Your task to perform on an android device: Search for "usb-c" on costco, select the first entry, add it to the cart, then select checkout. Image 0: 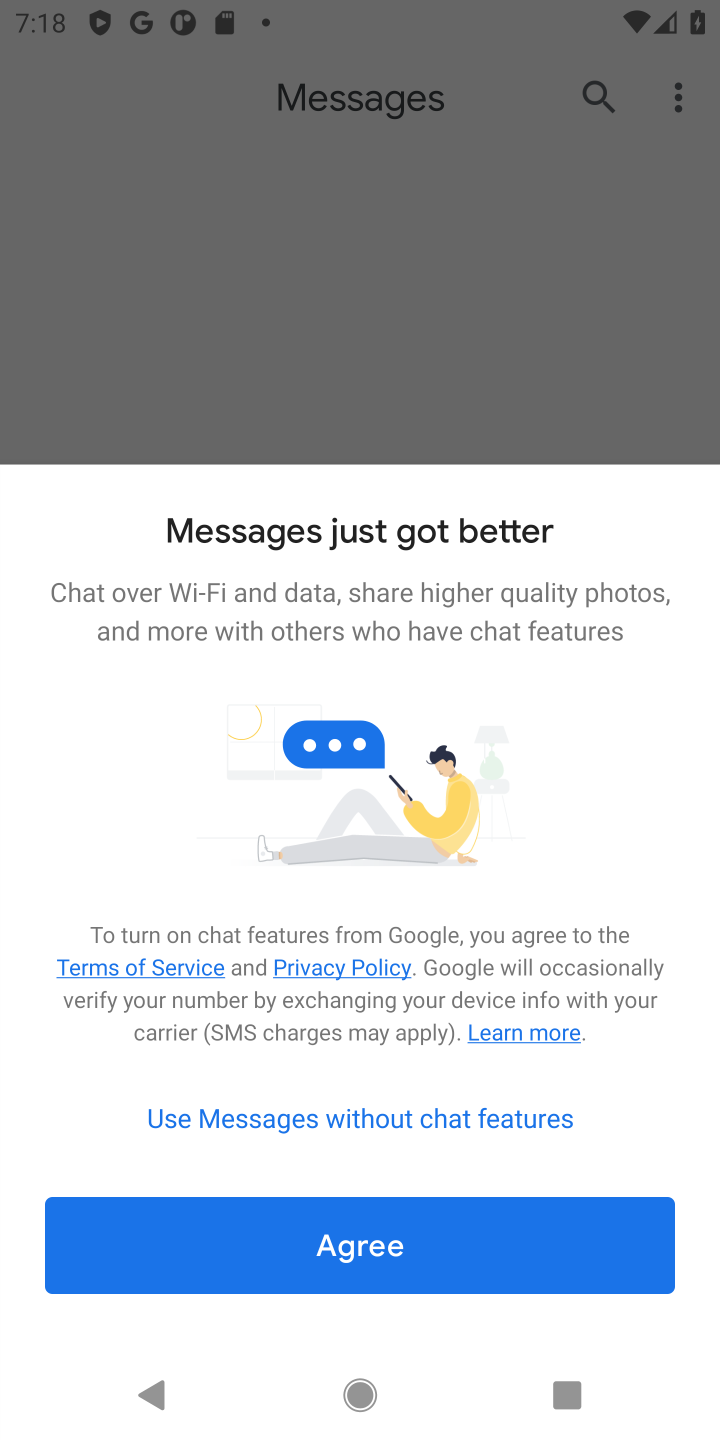
Step 0: press home button
Your task to perform on an android device: Search for "usb-c" on costco, select the first entry, add it to the cart, then select checkout. Image 1: 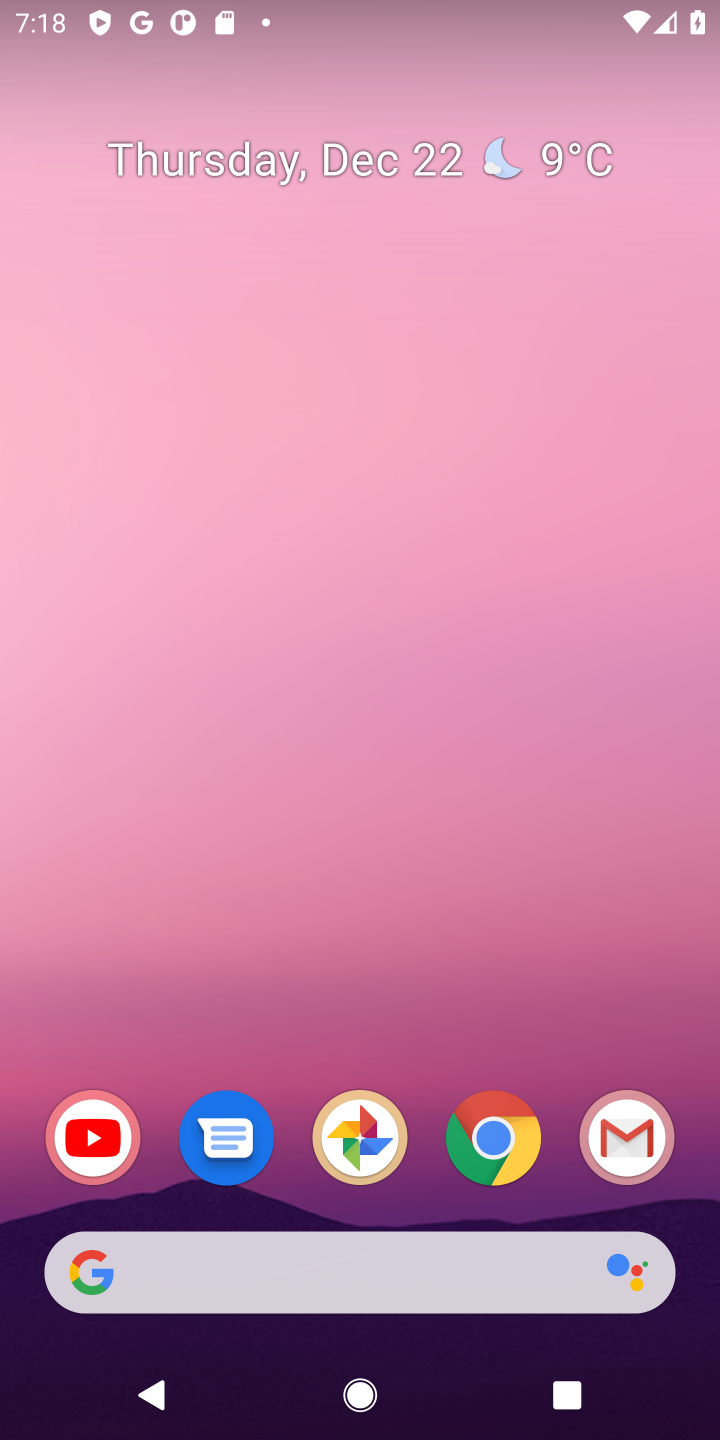
Step 1: click (490, 1152)
Your task to perform on an android device: Search for "usb-c" on costco, select the first entry, add it to the cart, then select checkout. Image 2: 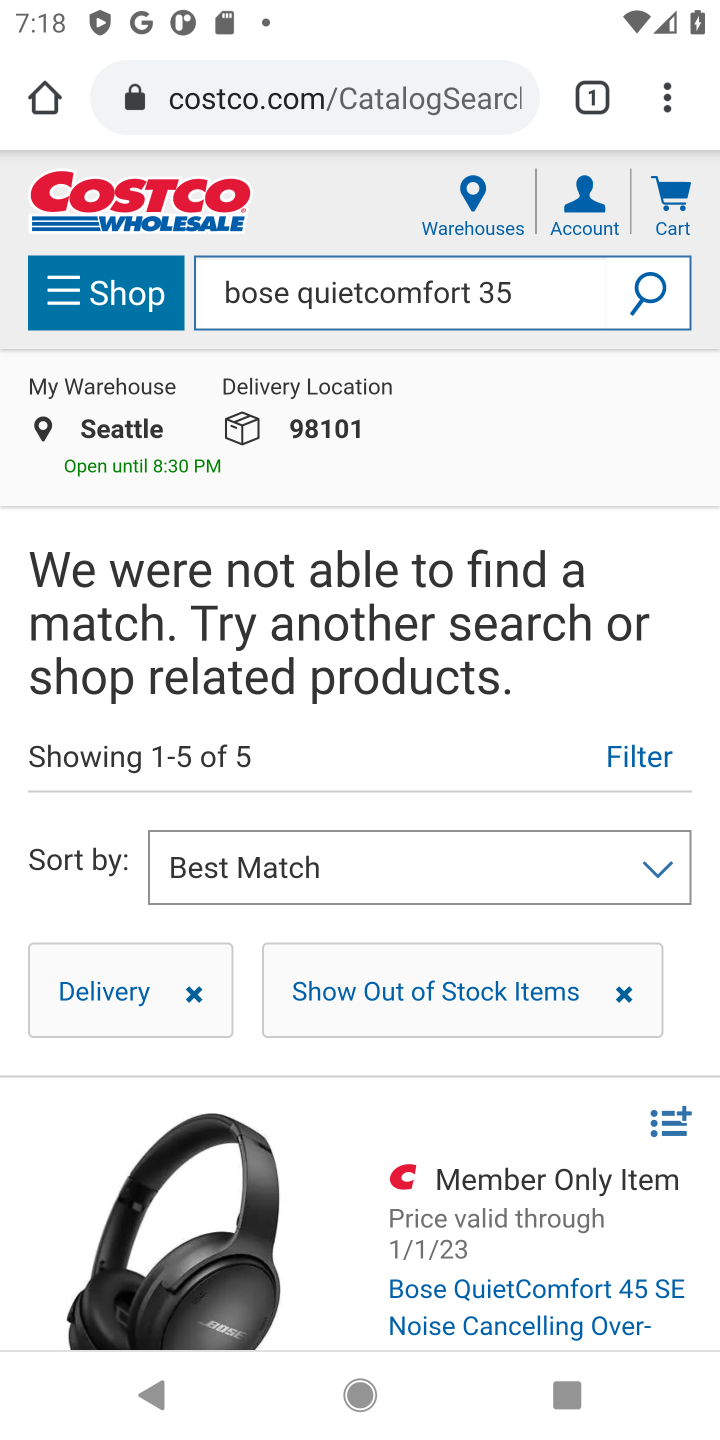
Step 2: click (395, 89)
Your task to perform on an android device: Search for "usb-c" on costco, select the first entry, add it to the cart, then select checkout. Image 3: 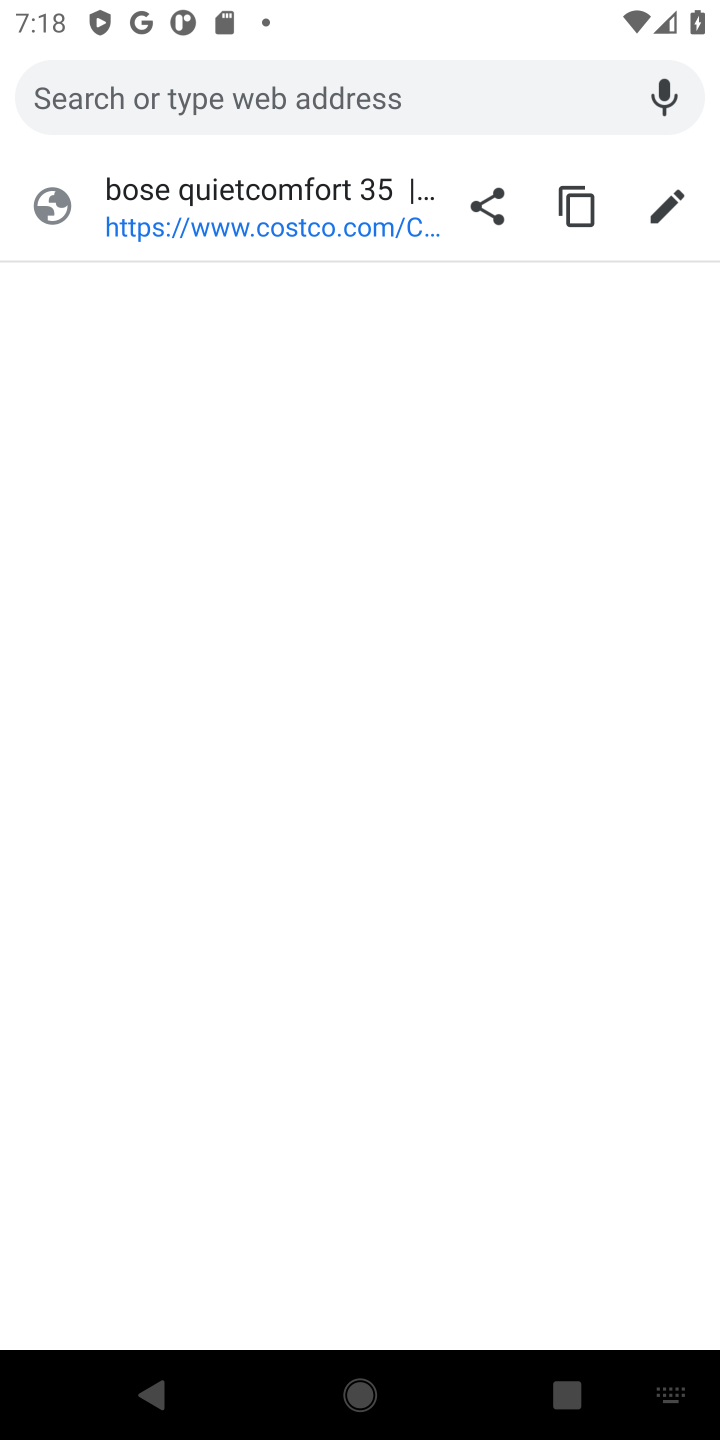
Step 3: type "costco"
Your task to perform on an android device: Search for "usb-c" on costco, select the first entry, add it to the cart, then select checkout. Image 4: 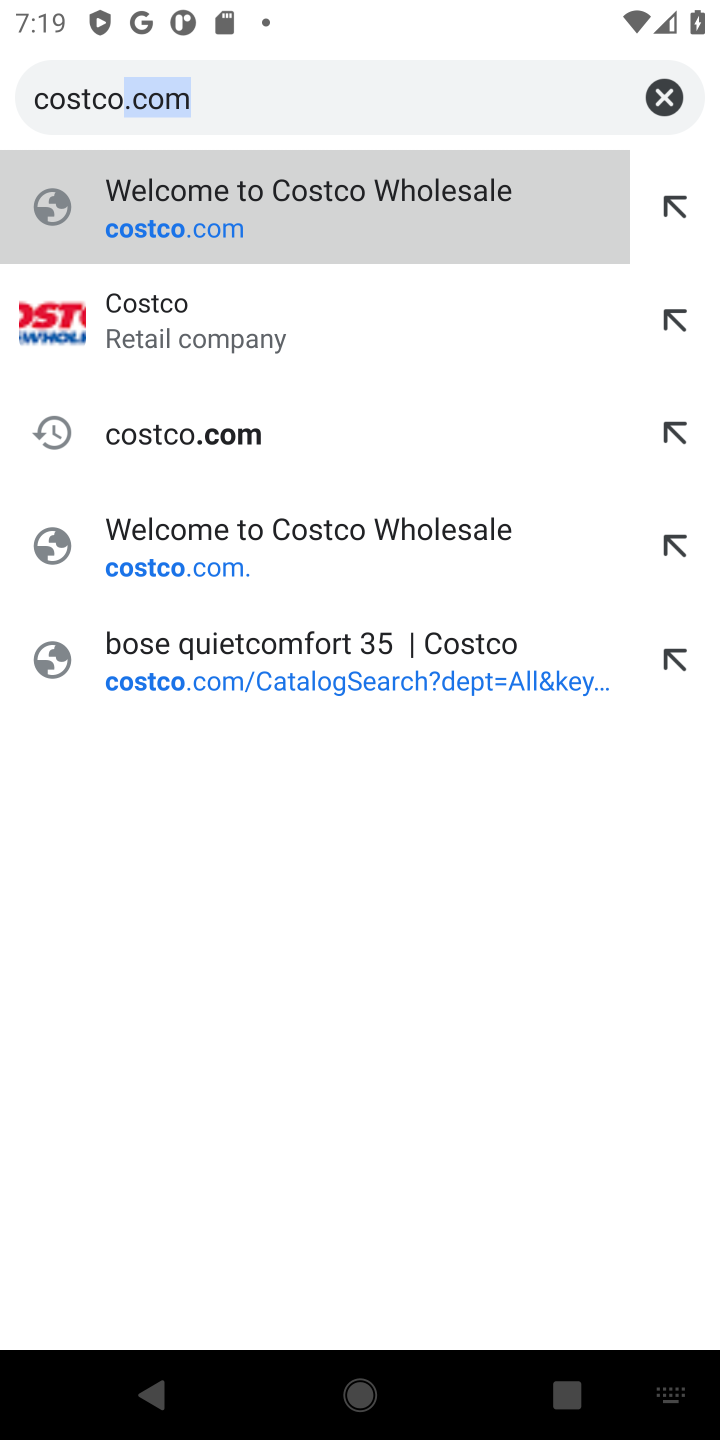
Step 4: click (210, 437)
Your task to perform on an android device: Search for "usb-c" on costco, select the first entry, add it to the cart, then select checkout. Image 5: 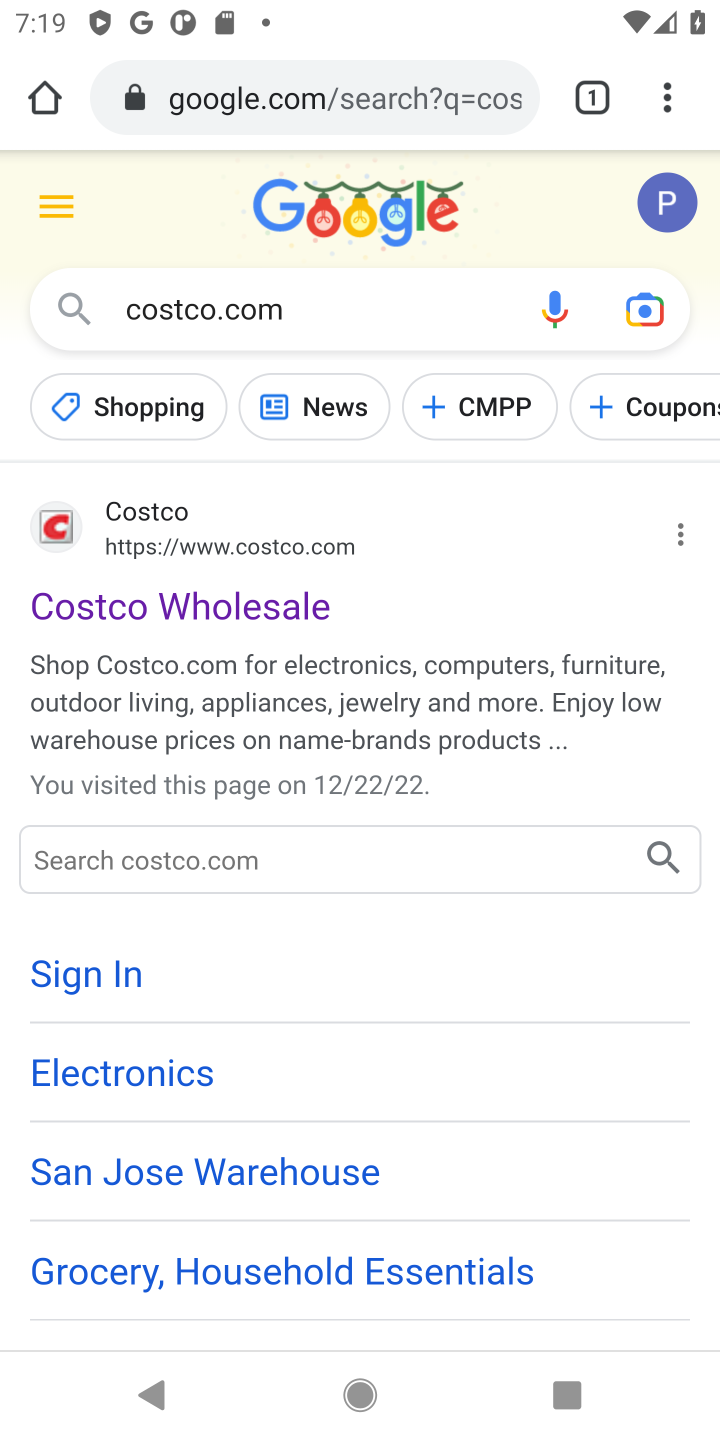
Step 5: click (226, 545)
Your task to perform on an android device: Search for "usb-c" on costco, select the first entry, add it to the cart, then select checkout. Image 6: 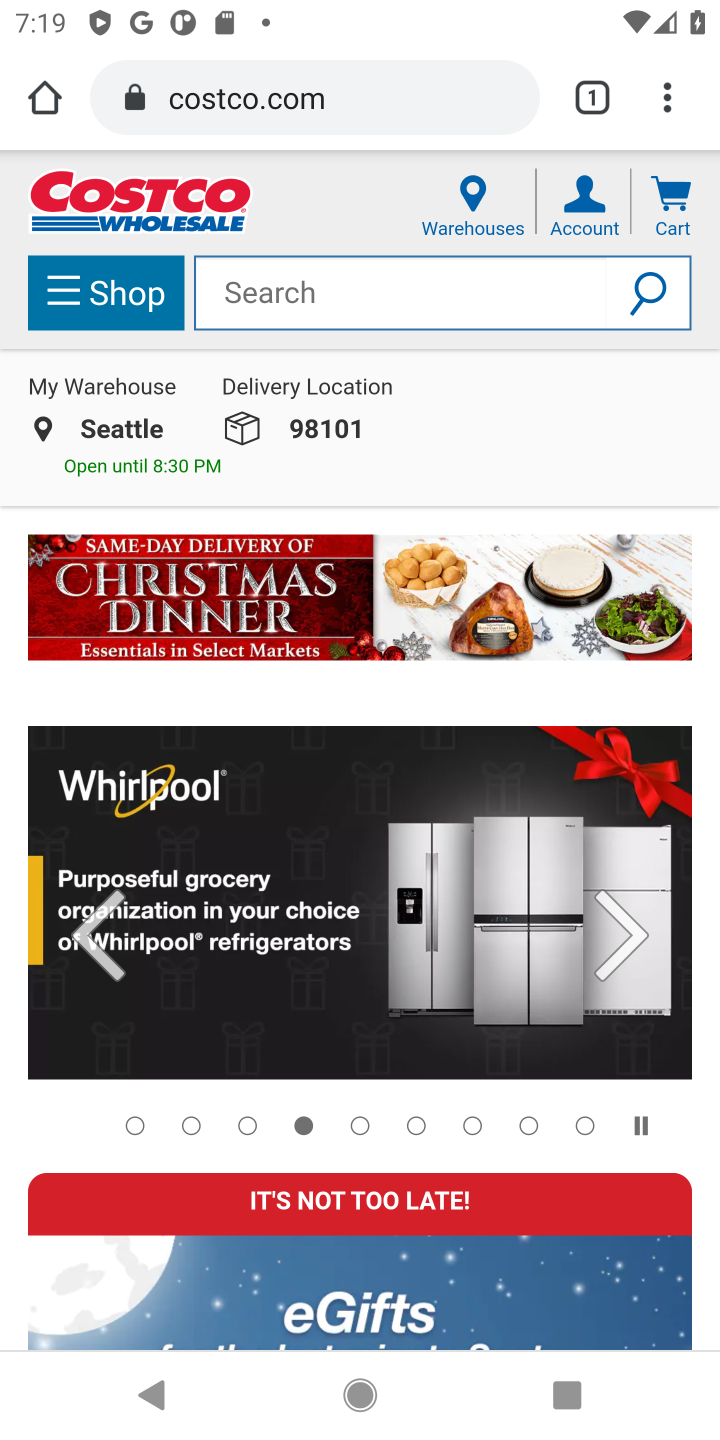
Step 6: click (465, 302)
Your task to perform on an android device: Search for "usb-c" on costco, select the first entry, add it to the cart, then select checkout. Image 7: 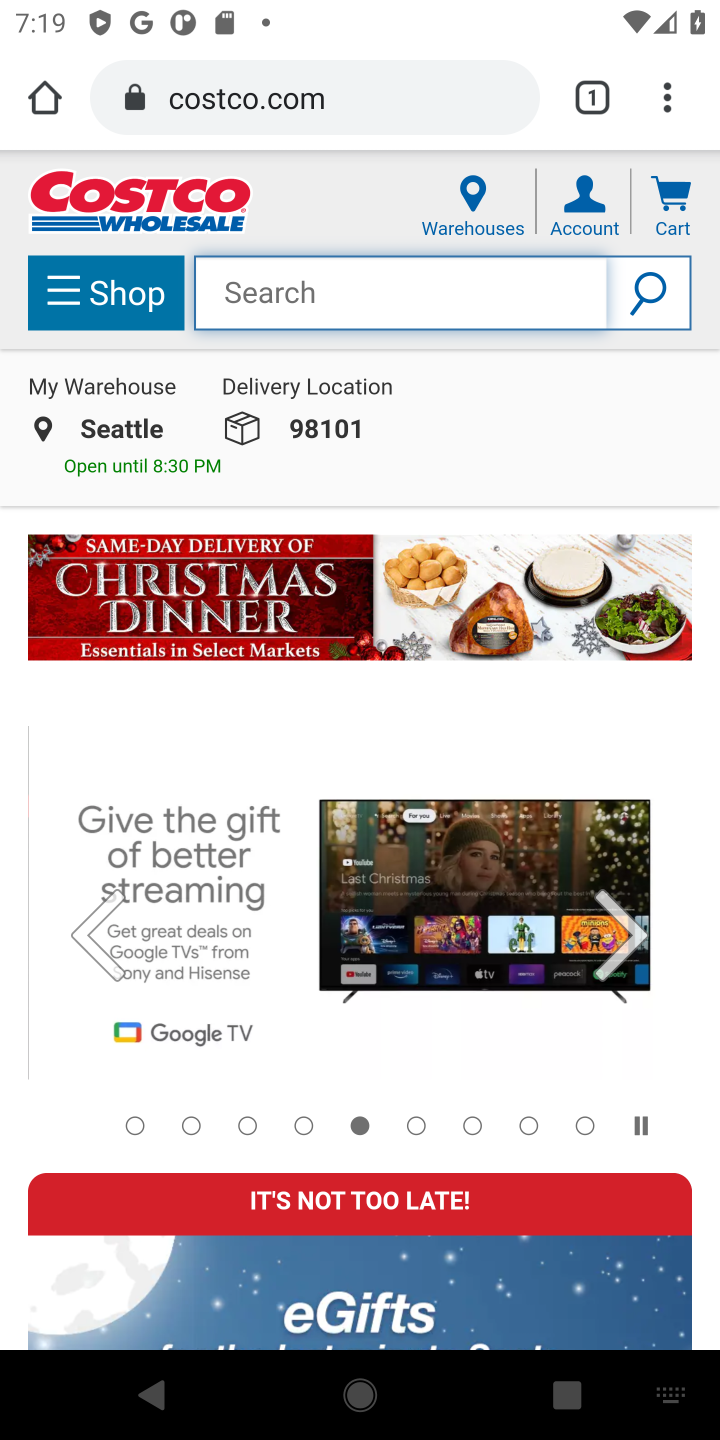
Step 7: type "usb-c"
Your task to perform on an android device: Search for "usb-c" on costco, select the first entry, add it to the cart, then select checkout. Image 8: 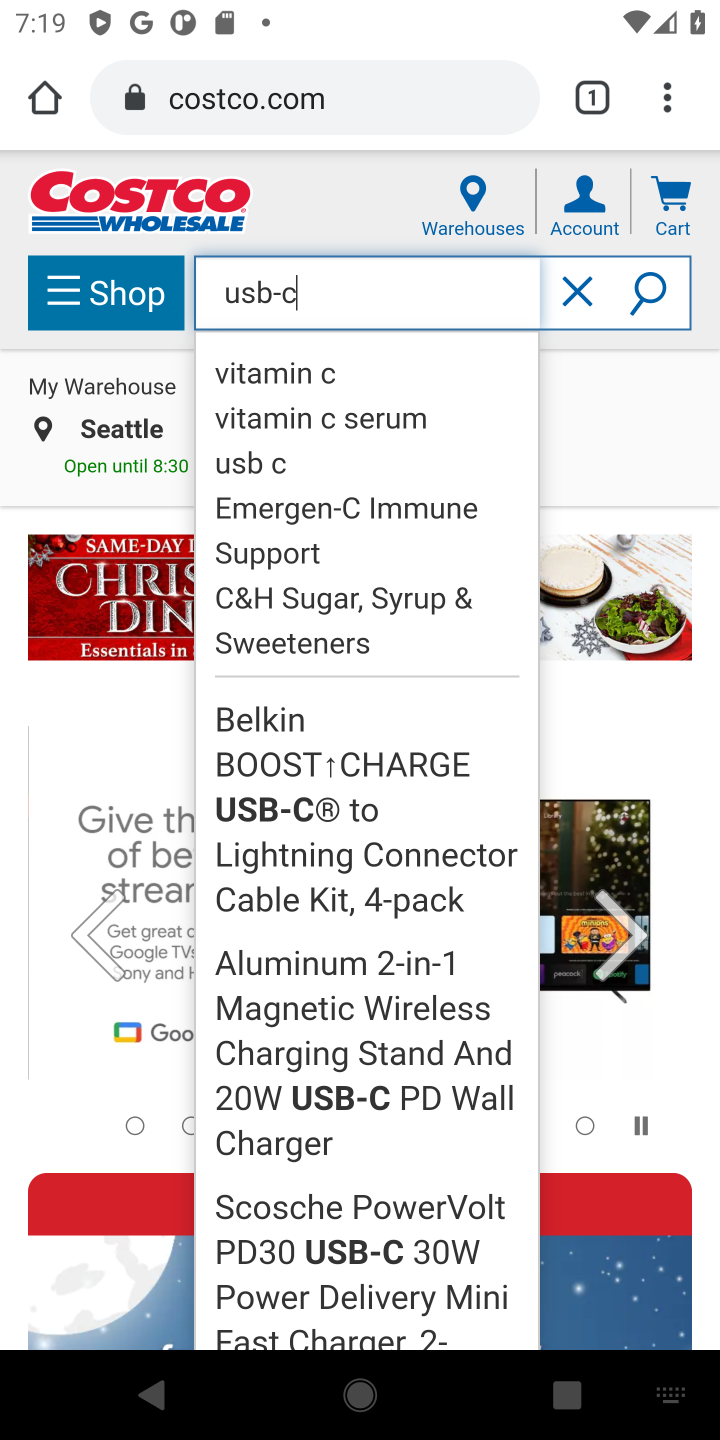
Step 8: click (643, 281)
Your task to perform on an android device: Search for "usb-c" on costco, select the first entry, add it to the cart, then select checkout. Image 9: 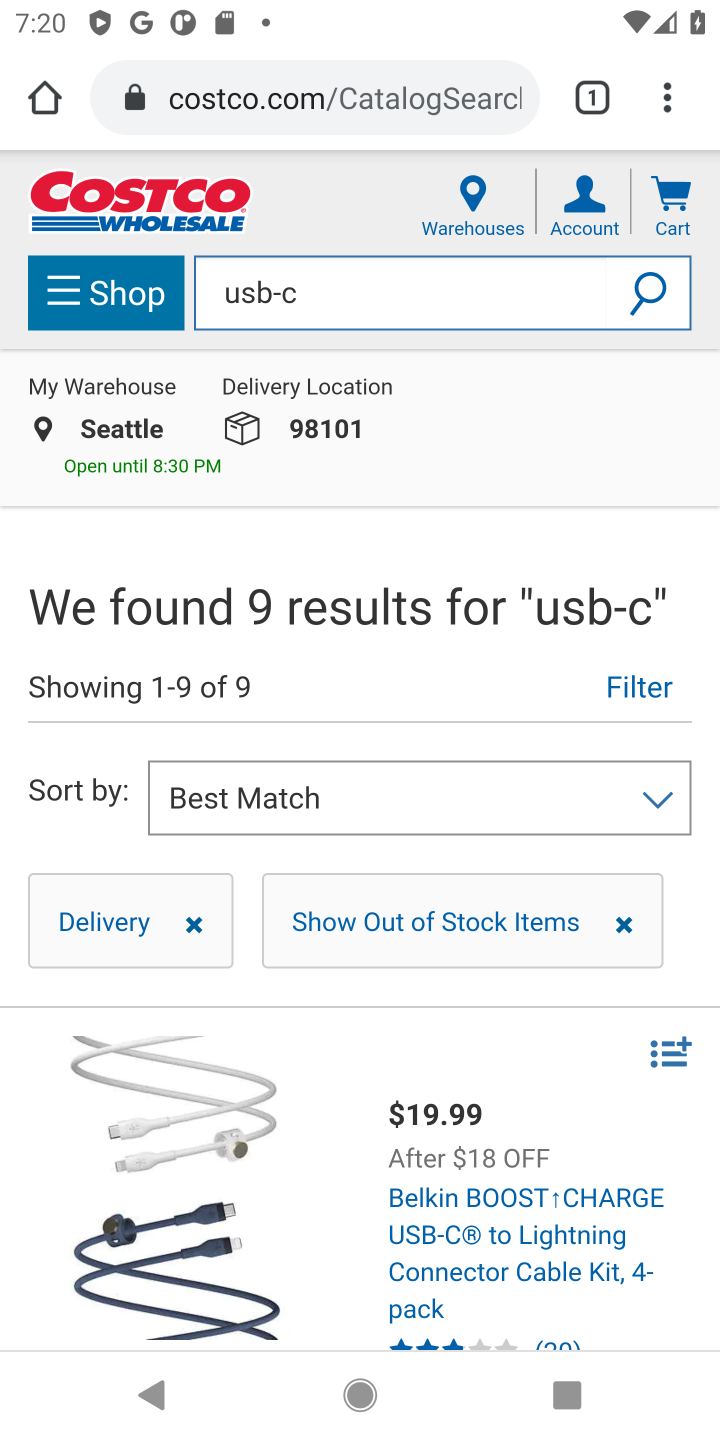
Step 9: click (150, 1223)
Your task to perform on an android device: Search for "usb-c" on costco, select the first entry, add it to the cart, then select checkout. Image 10: 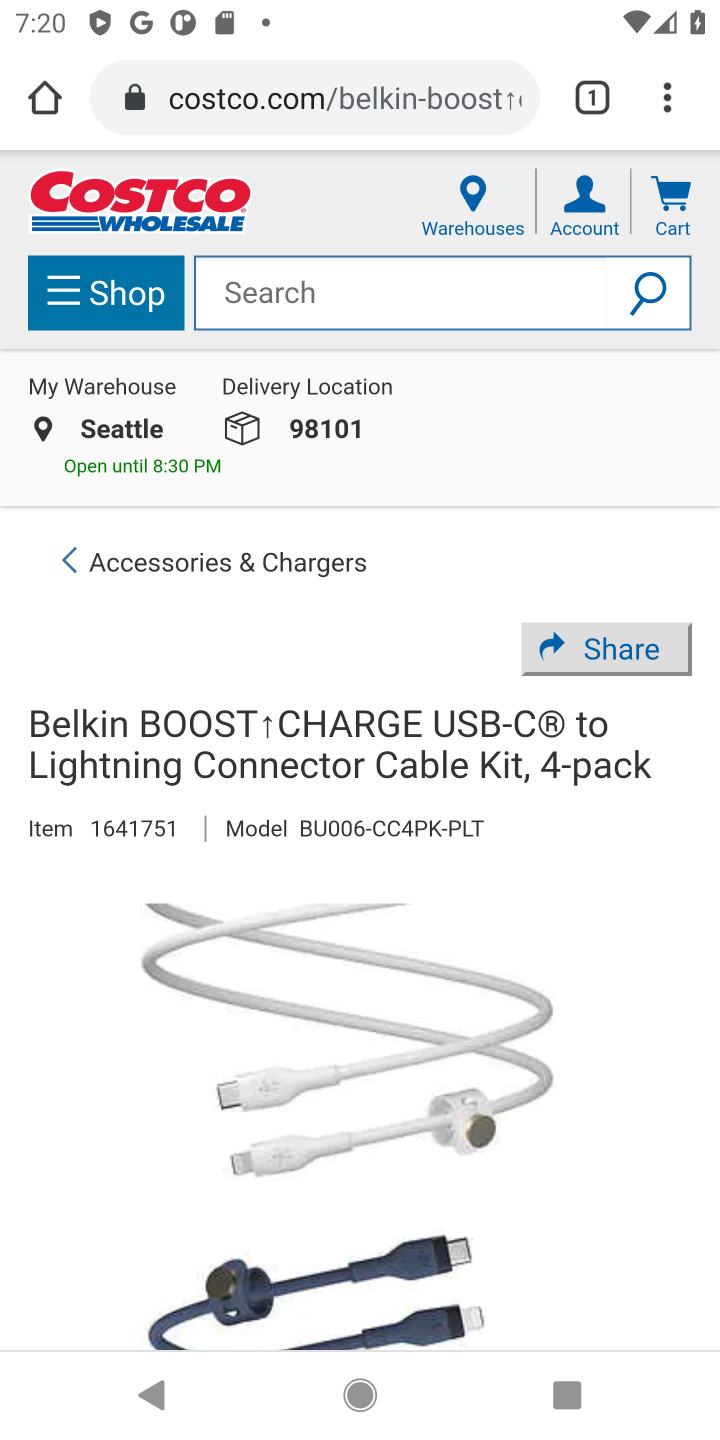
Step 10: drag from (548, 1063) to (579, 540)
Your task to perform on an android device: Search for "usb-c" on costco, select the first entry, add it to the cart, then select checkout. Image 11: 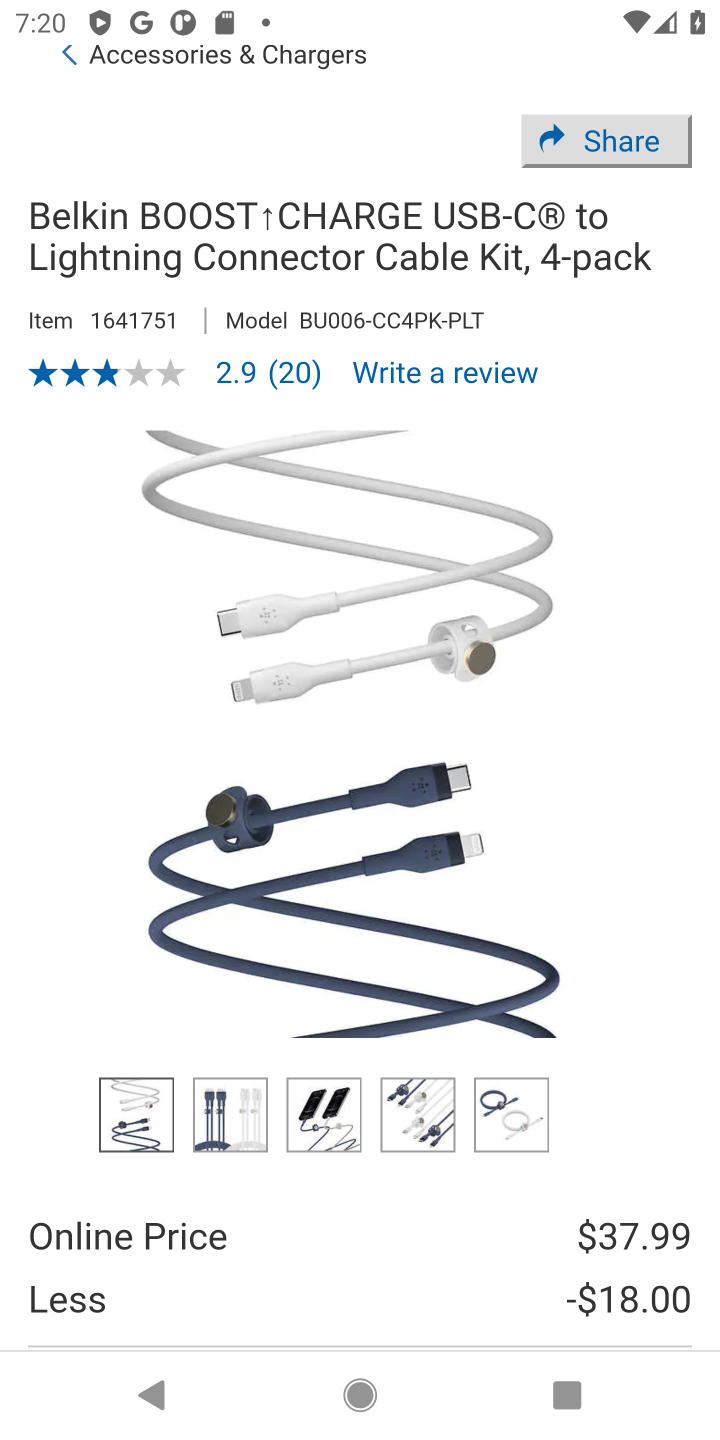
Step 11: drag from (409, 993) to (496, 173)
Your task to perform on an android device: Search for "usb-c" on costco, select the first entry, add it to the cart, then select checkout. Image 12: 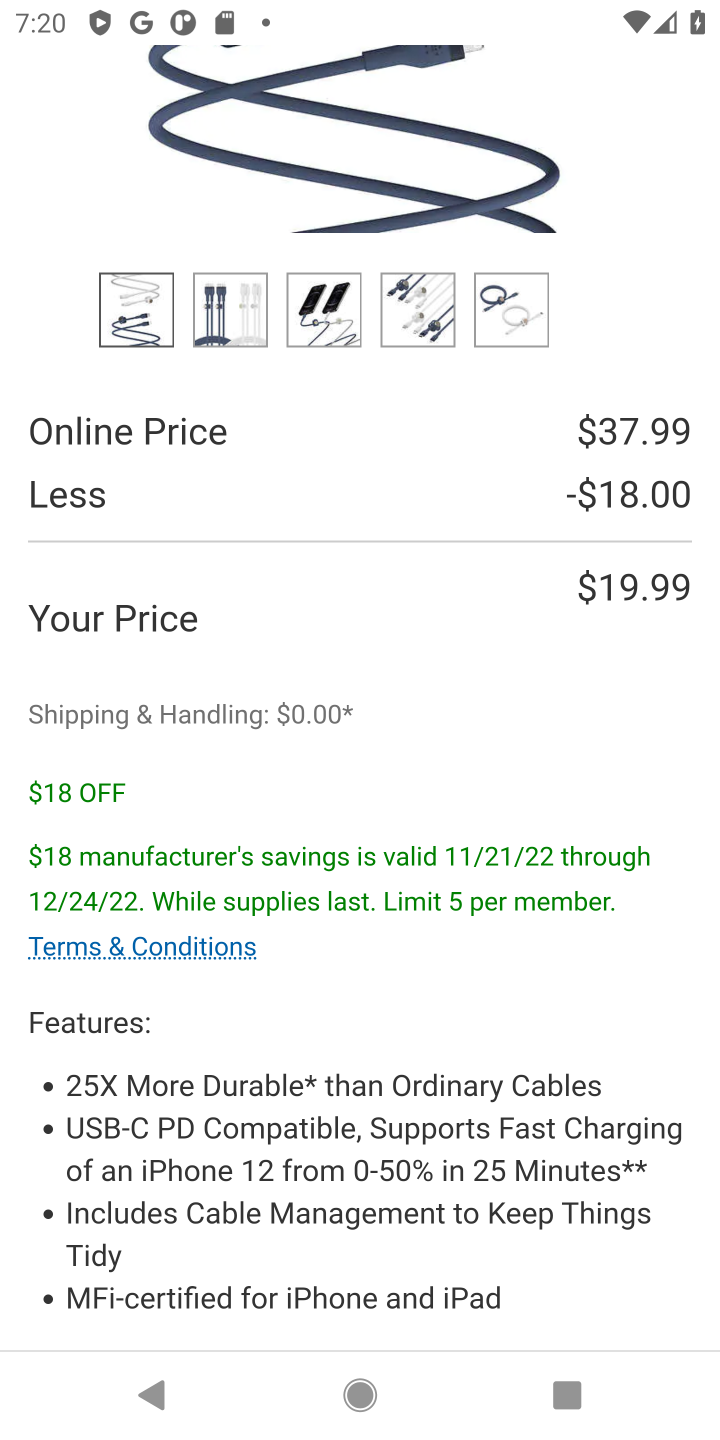
Step 12: drag from (450, 954) to (512, 111)
Your task to perform on an android device: Search for "usb-c" on costco, select the first entry, add it to the cart, then select checkout. Image 13: 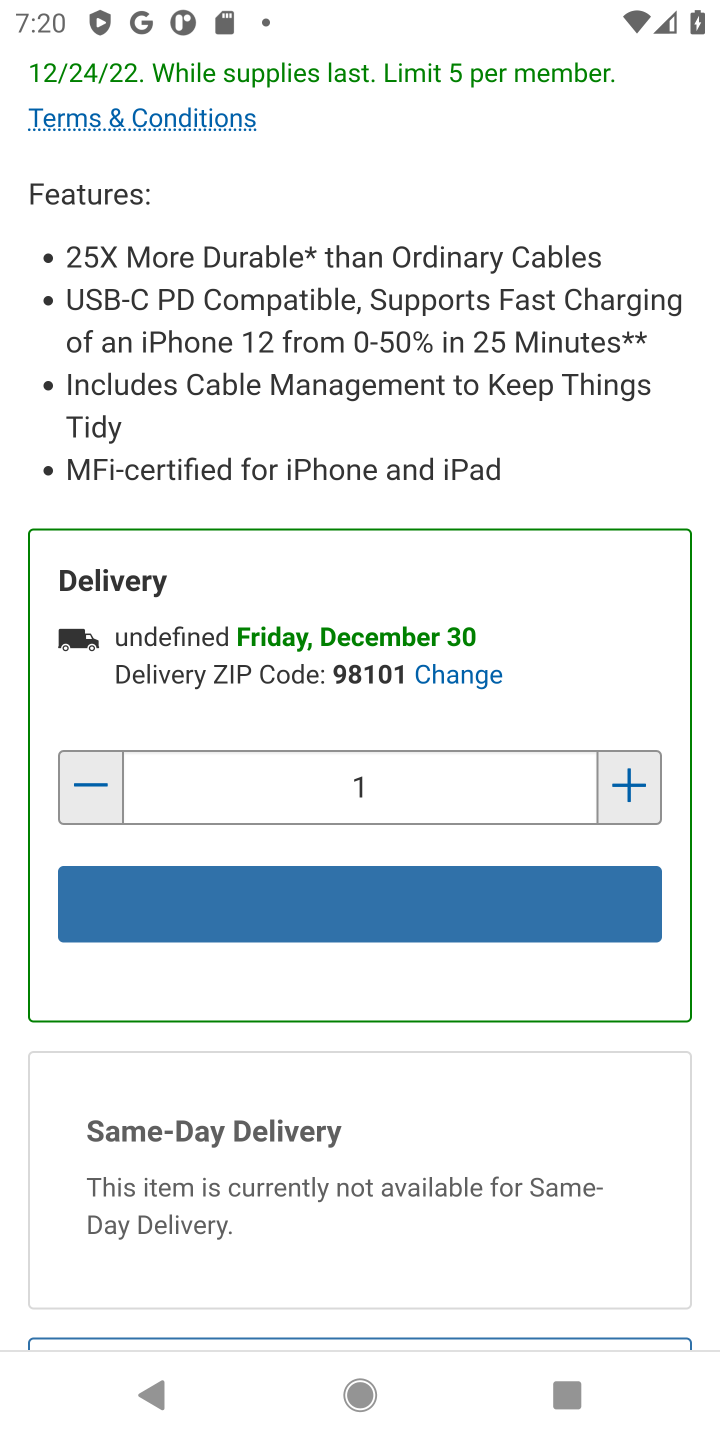
Step 13: press back button
Your task to perform on an android device: Search for "usb-c" on costco, select the first entry, add it to the cart, then select checkout. Image 14: 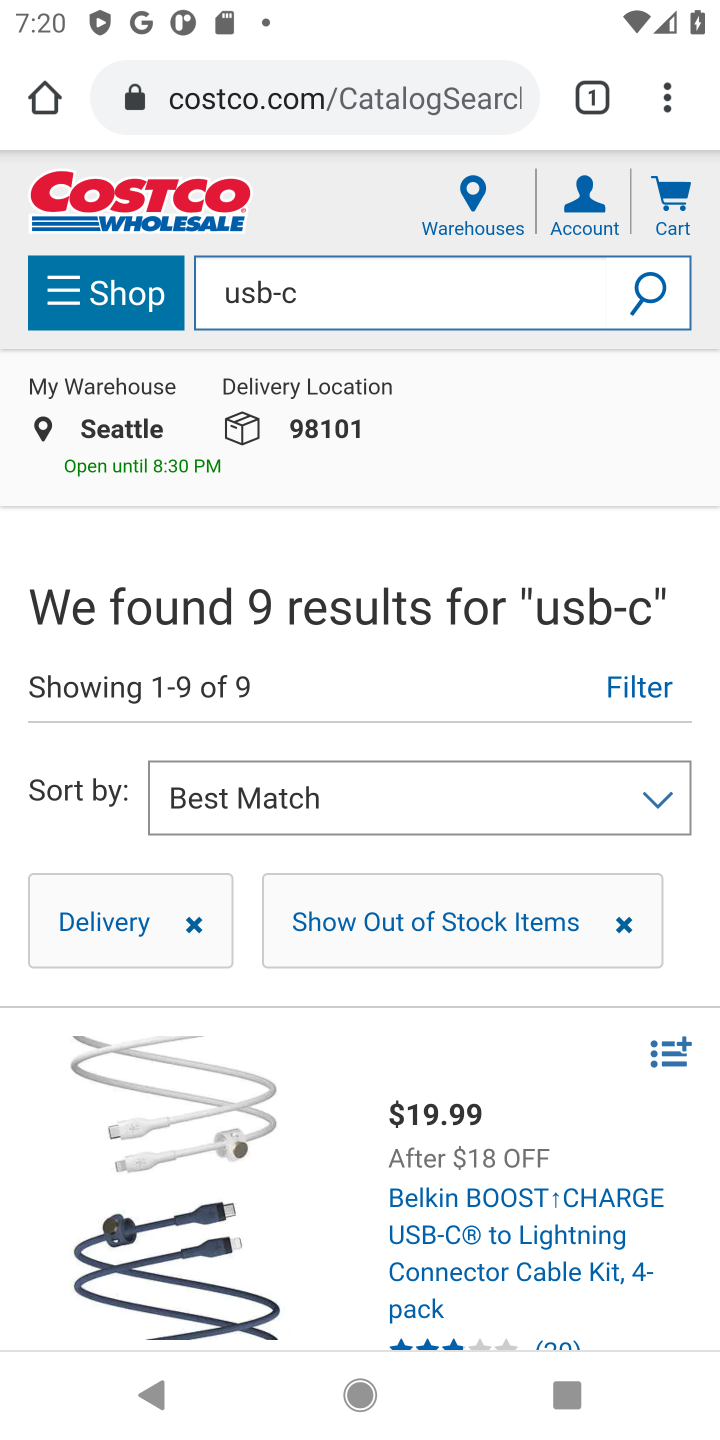
Step 14: drag from (457, 1136) to (531, 727)
Your task to perform on an android device: Search for "usb-c" on costco, select the first entry, add it to the cart, then select checkout. Image 15: 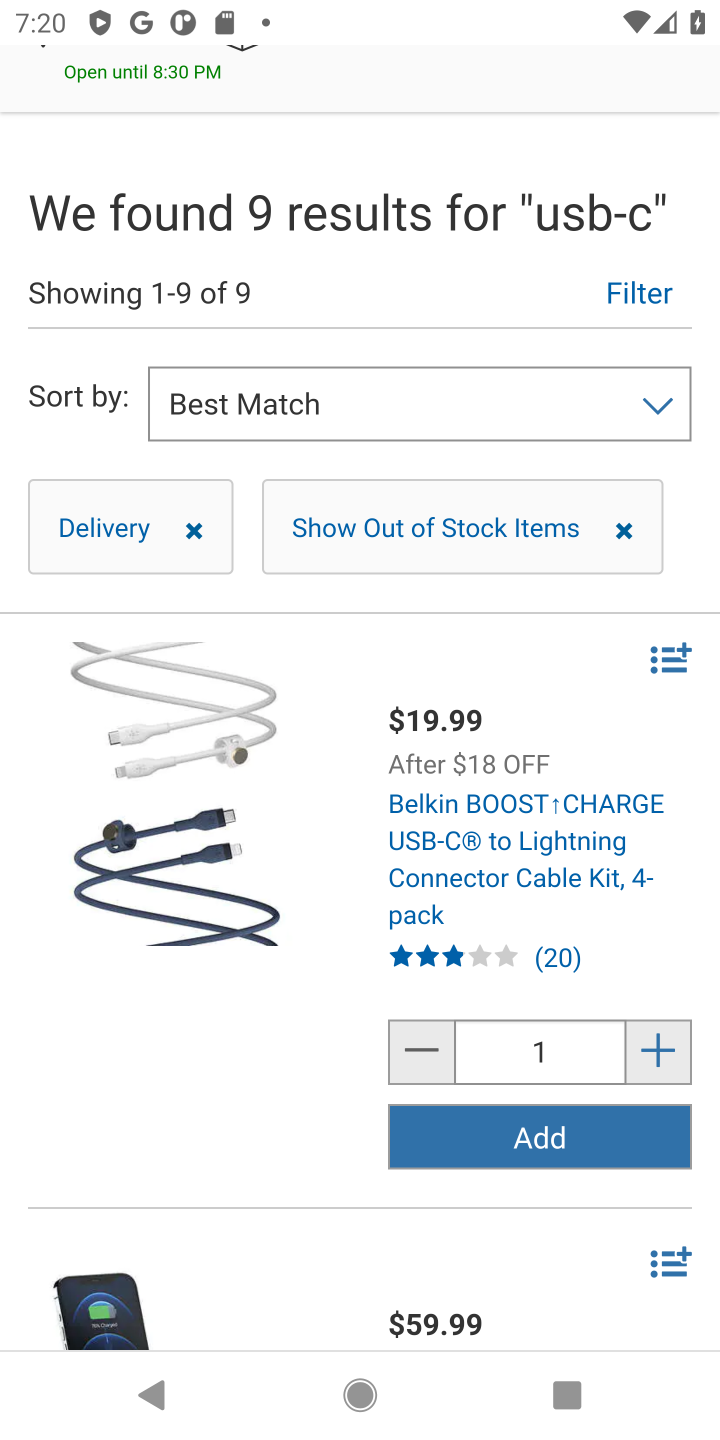
Step 15: drag from (288, 1080) to (437, 588)
Your task to perform on an android device: Search for "usb-c" on costco, select the first entry, add it to the cart, then select checkout. Image 16: 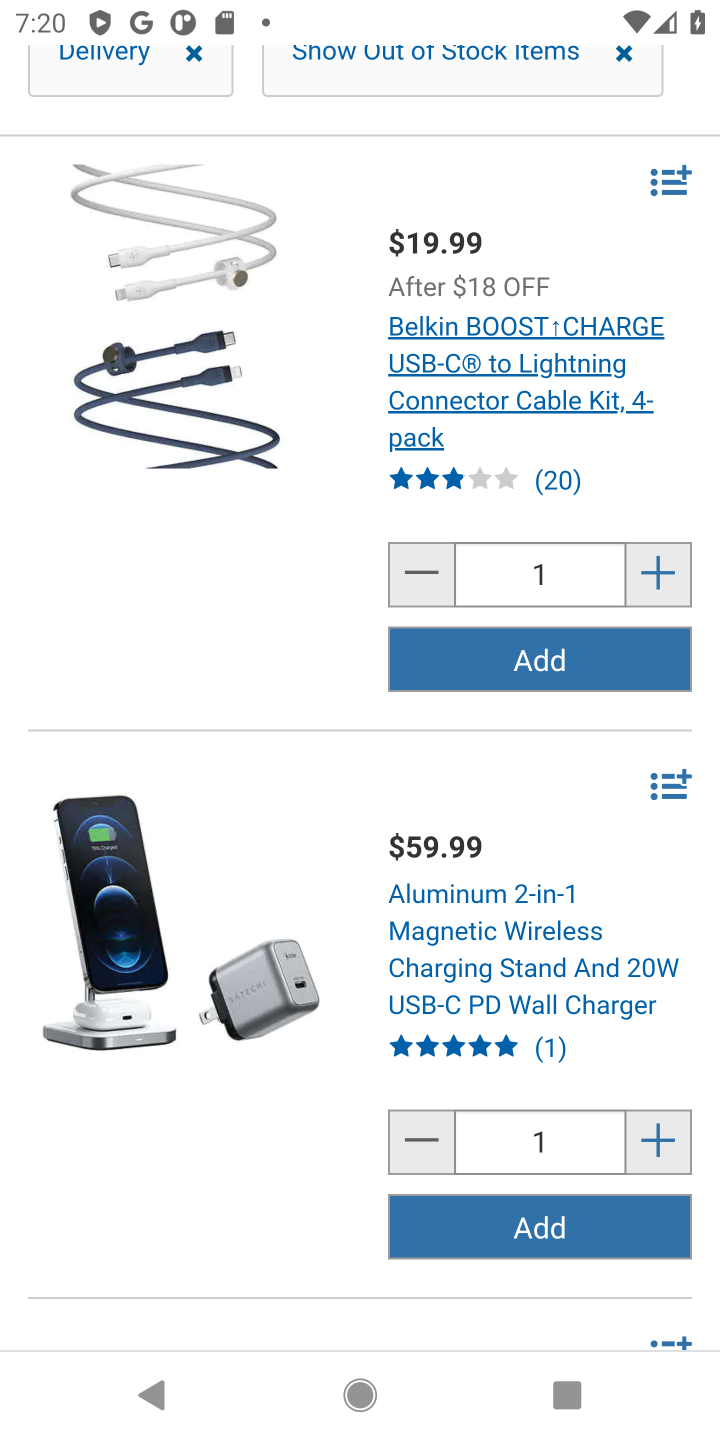
Step 16: click (193, 497)
Your task to perform on an android device: Search for "usb-c" on costco, select the first entry, add it to the cart, then select checkout. Image 17: 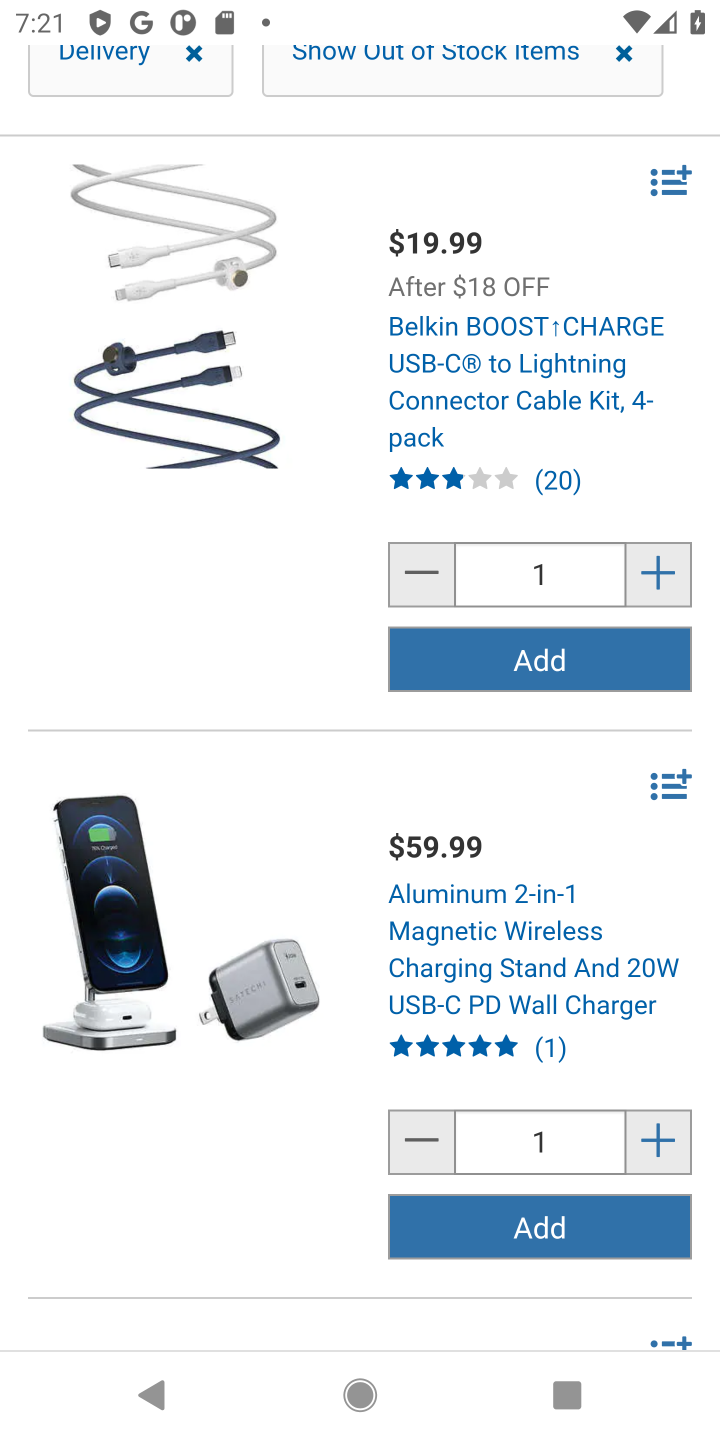
Step 17: click (179, 419)
Your task to perform on an android device: Search for "usb-c" on costco, select the first entry, add it to the cart, then select checkout. Image 18: 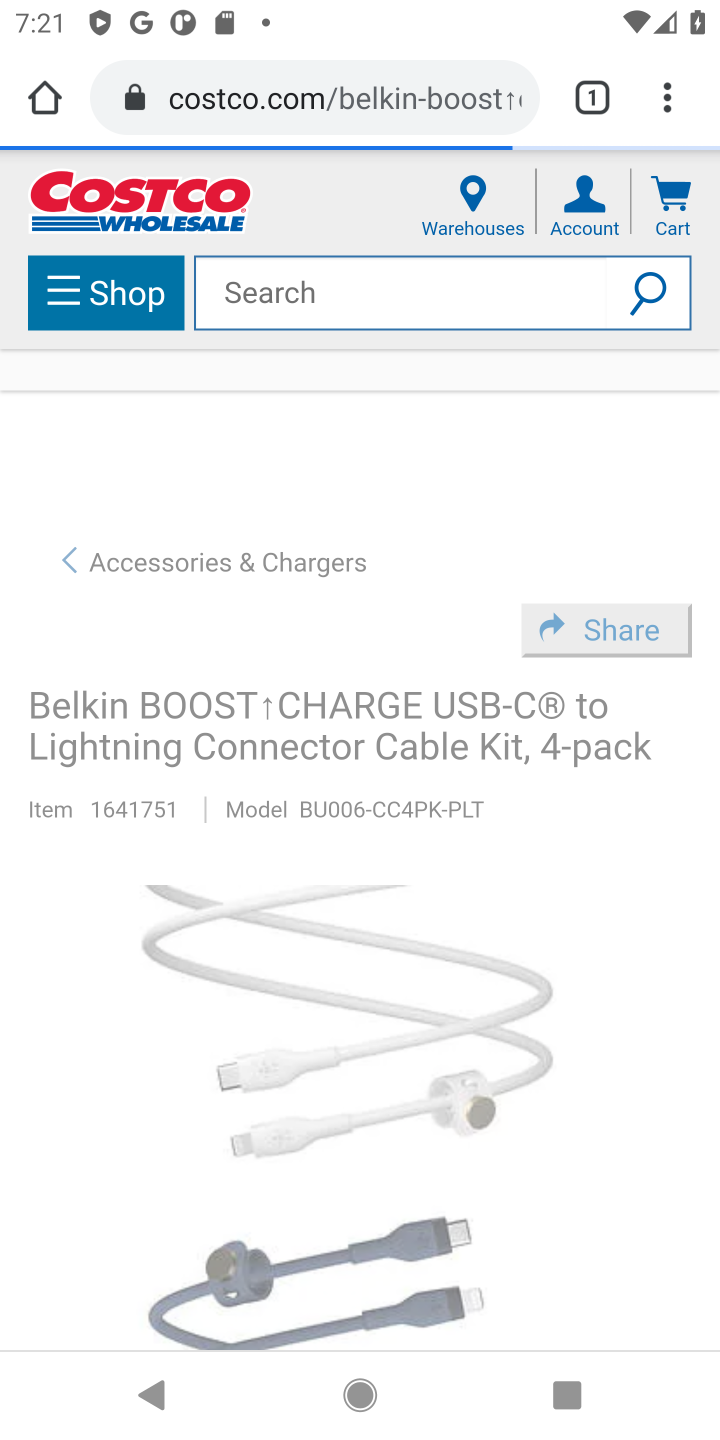
Step 18: drag from (514, 1165) to (708, 438)
Your task to perform on an android device: Search for "usb-c" on costco, select the first entry, add it to the cart, then select checkout. Image 19: 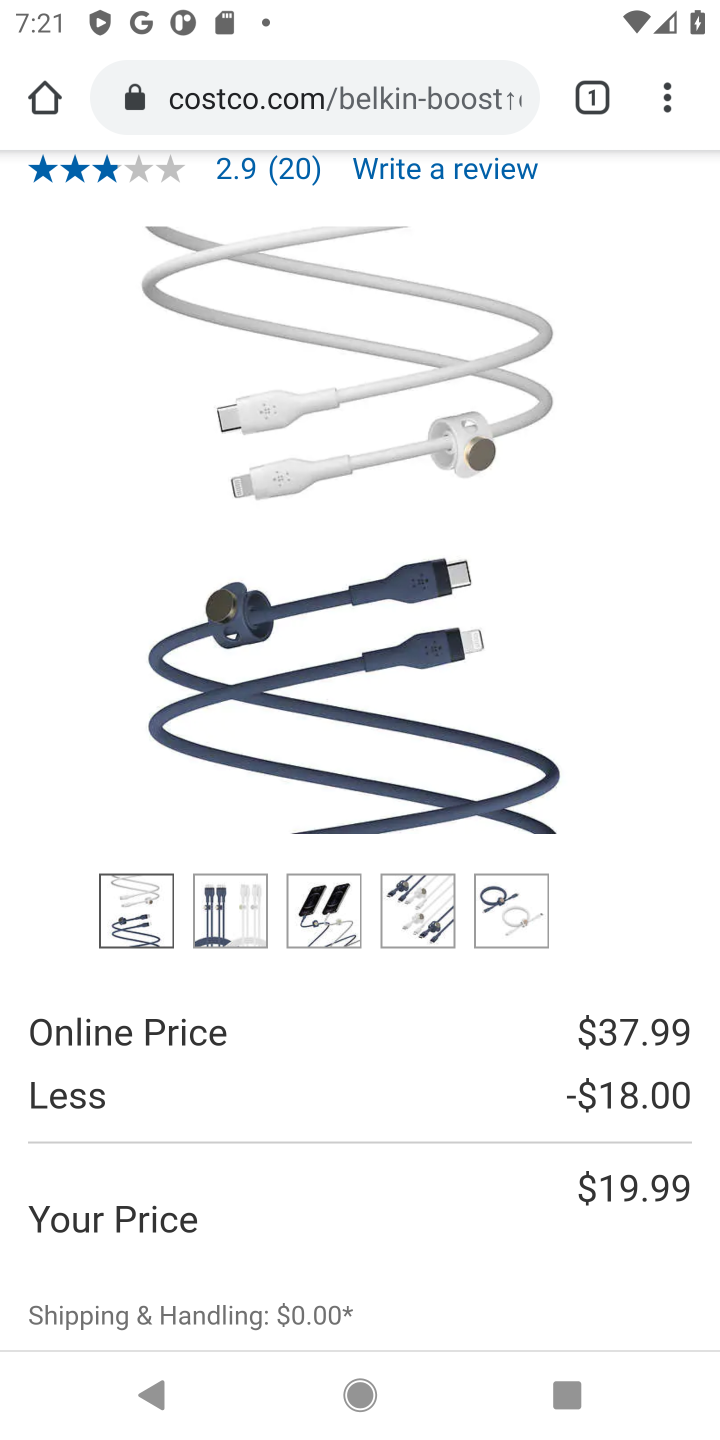
Step 19: drag from (393, 1133) to (544, 490)
Your task to perform on an android device: Search for "usb-c" on costco, select the first entry, add it to the cart, then select checkout. Image 20: 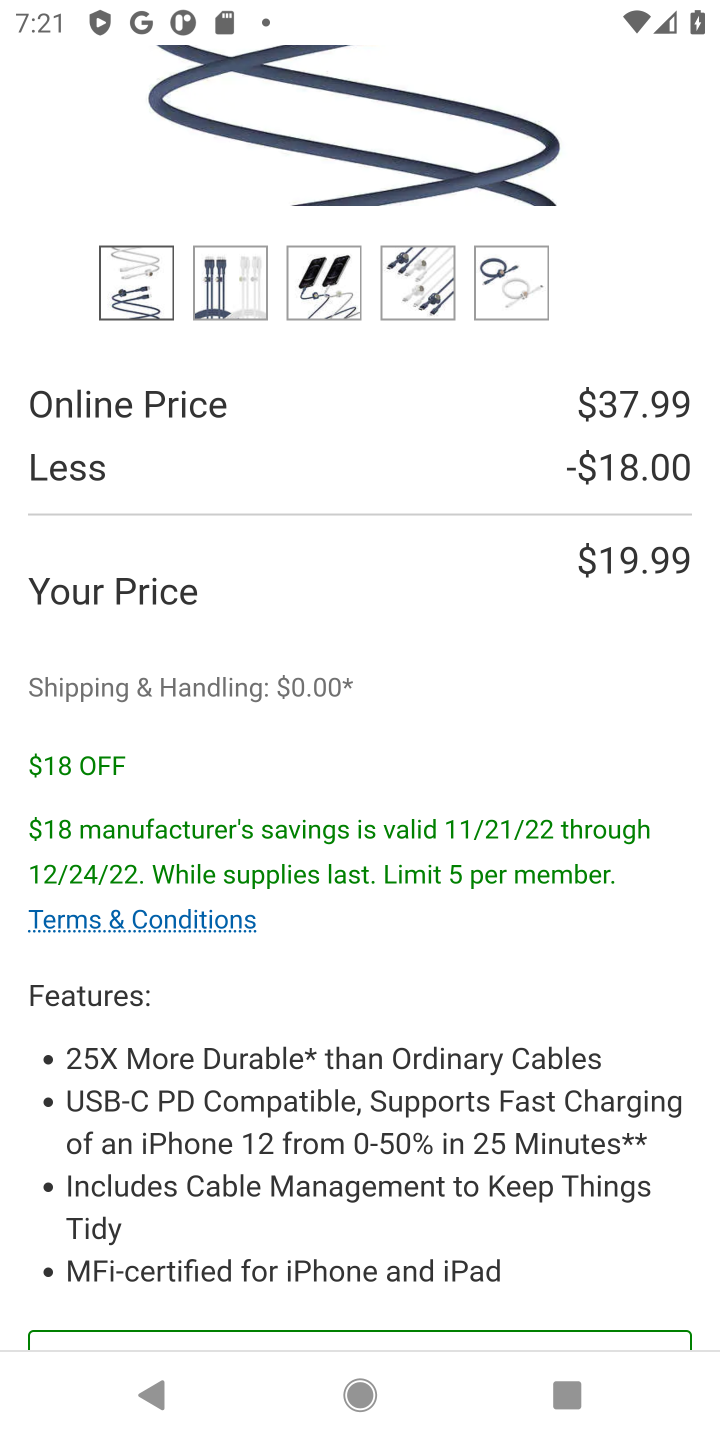
Step 20: drag from (412, 971) to (583, 150)
Your task to perform on an android device: Search for "usb-c" on costco, select the first entry, add it to the cart, then select checkout. Image 21: 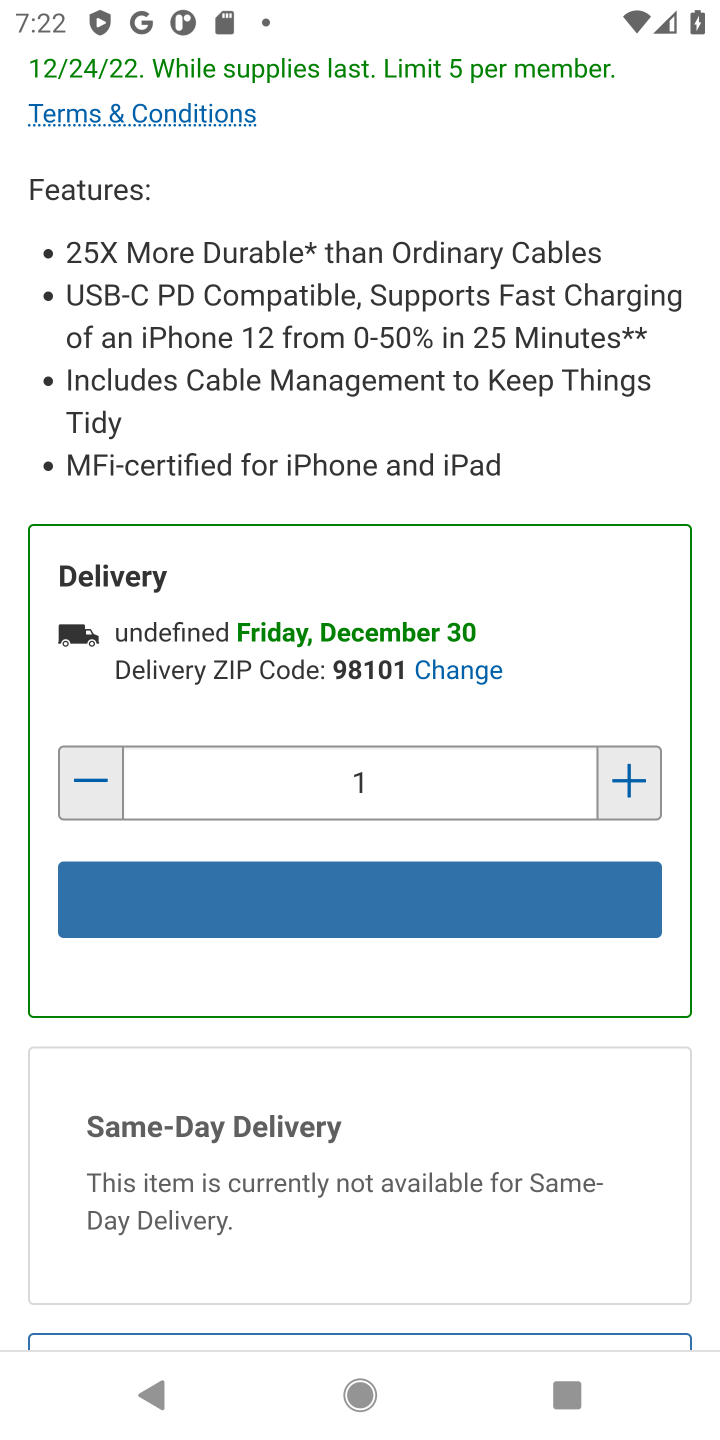
Step 21: press back button
Your task to perform on an android device: Search for "usb-c" on costco, select the first entry, add it to the cart, then select checkout. Image 22: 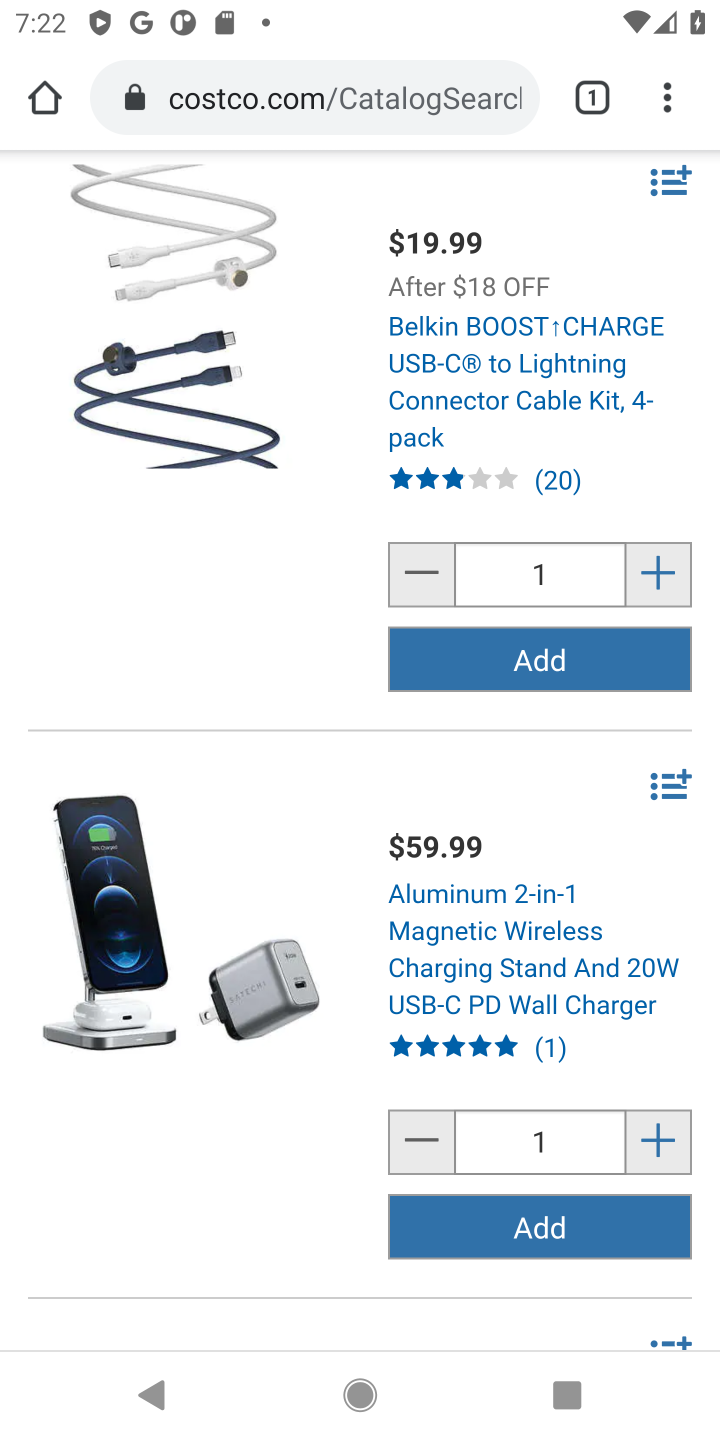
Step 22: click (587, 666)
Your task to perform on an android device: Search for "usb-c" on costco, select the first entry, add it to the cart, then select checkout. Image 23: 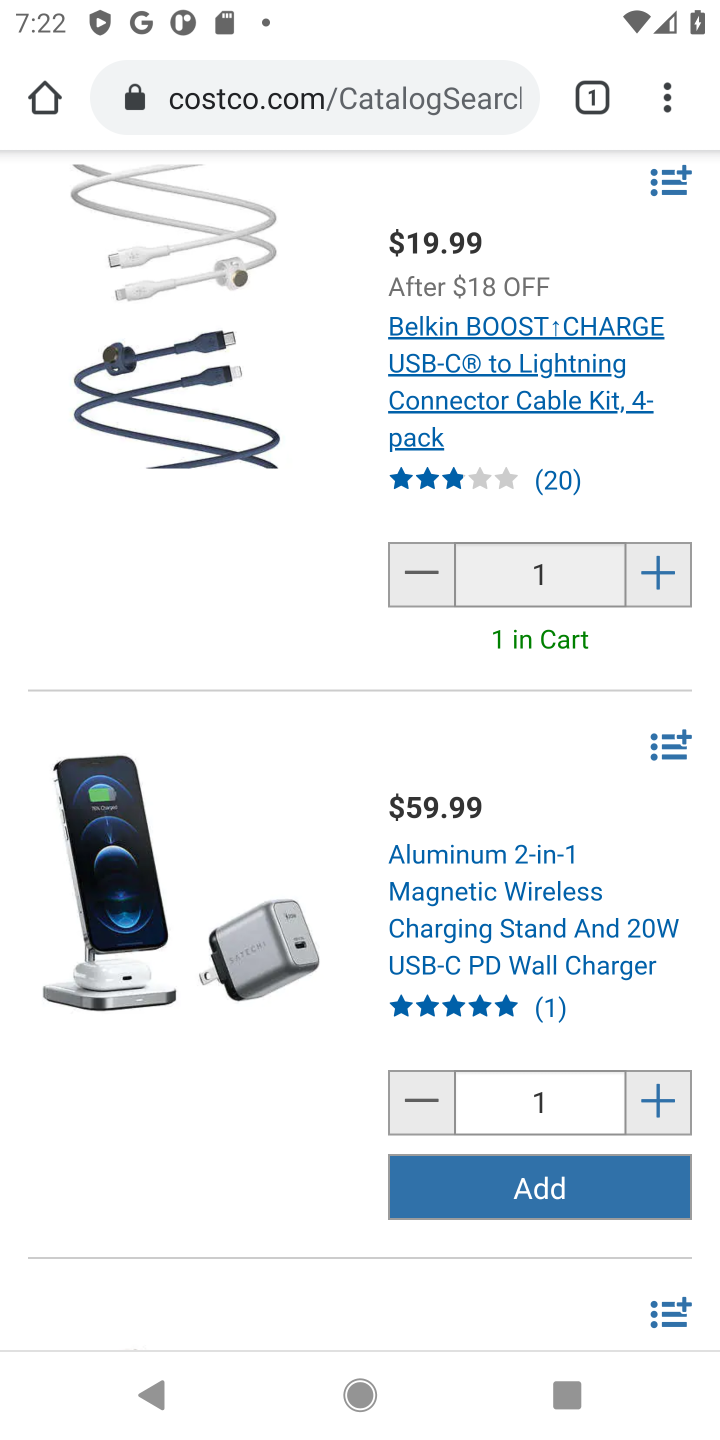
Step 23: drag from (643, 308) to (706, 480)
Your task to perform on an android device: Search for "usb-c" on costco, select the first entry, add it to the cart, then select checkout. Image 24: 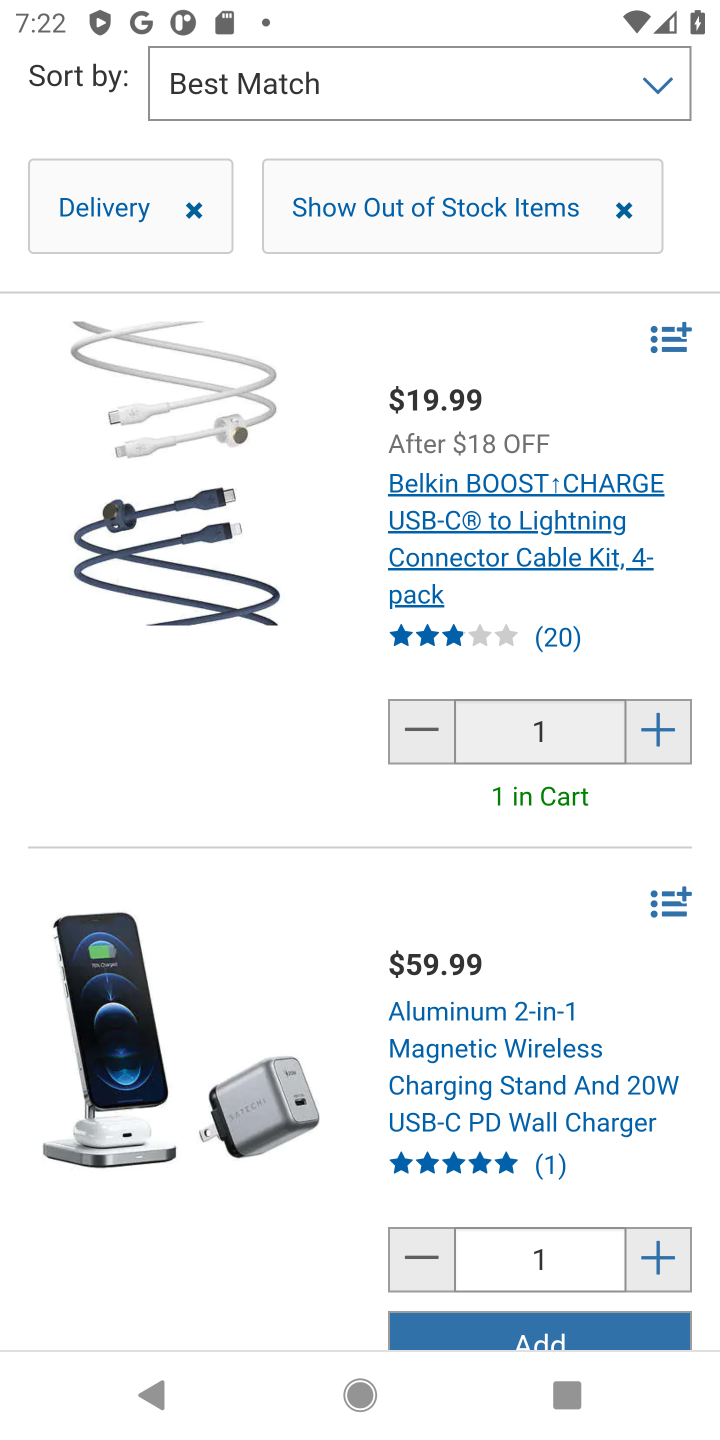
Step 24: drag from (278, 490) to (447, 1244)
Your task to perform on an android device: Search for "usb-c" on costco, select the first entry, add it to the cart, then select checkout. Image 25: 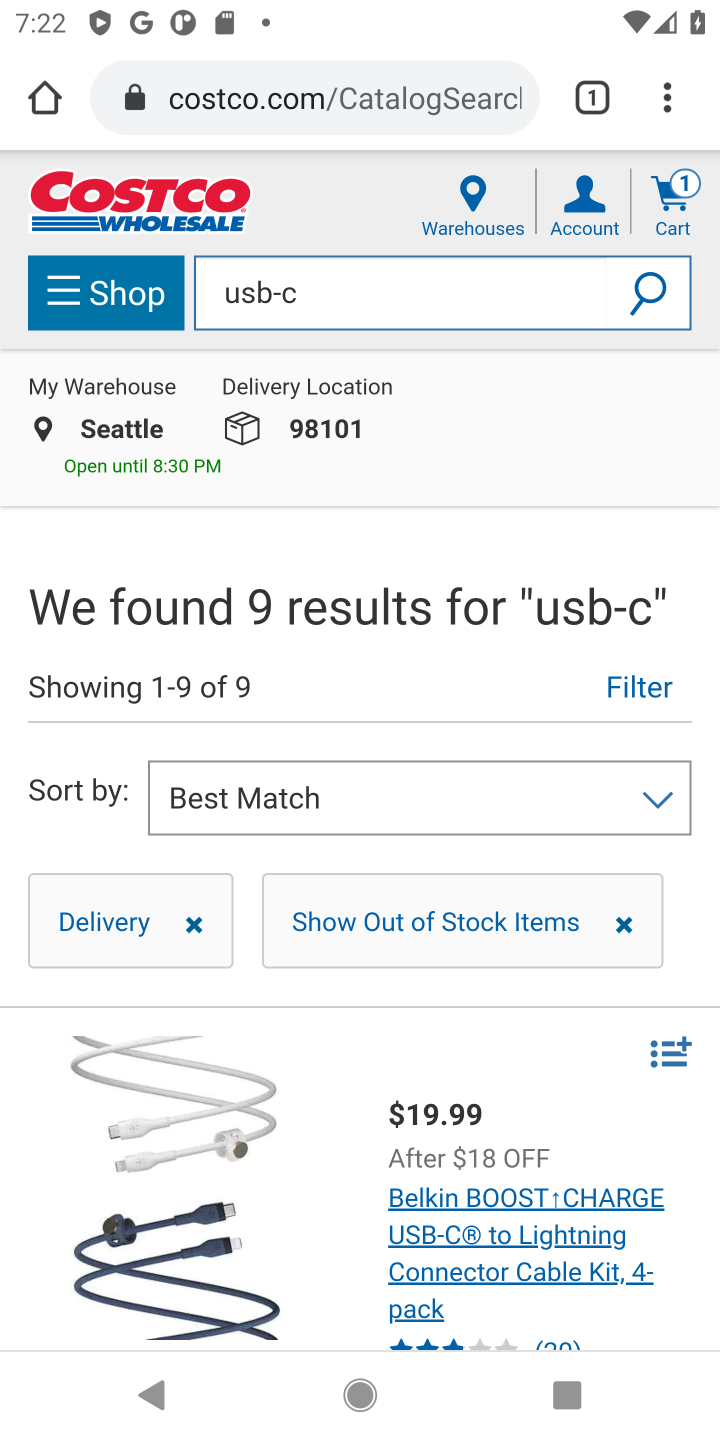
Step 25: click (659, 216)
Your task to perform on an android device: Search for "usb-c" on costco, select the first entry, add it to the cart, then select checkout. Image 26: 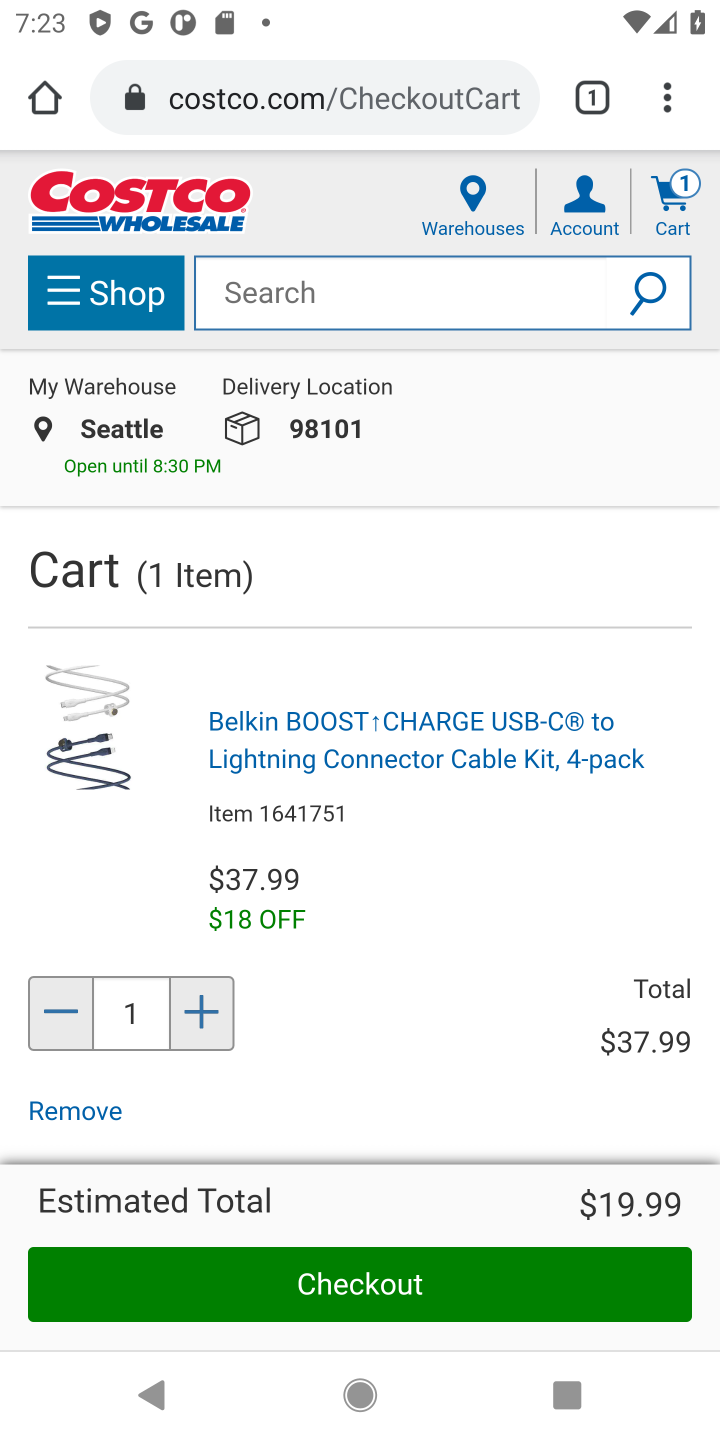
Step 26: click (356, 1269)
Your task to perform on an android device: Search for "usb-c" on costco, select the first entry, add it to the cart, then select checkout. Image 27: 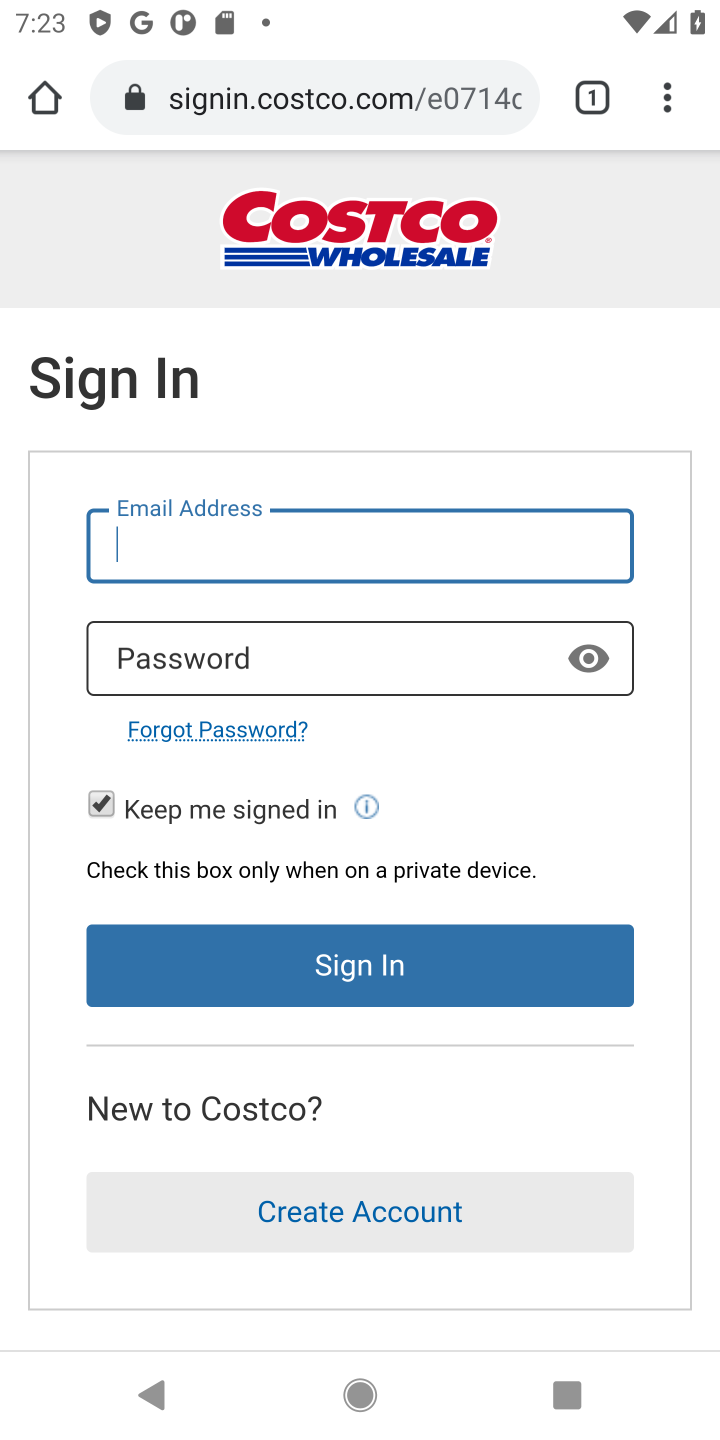
Step 27: task complete